Your task to perform on an android device: Open the Play Movies app and select the watchlist tab. Image 0: 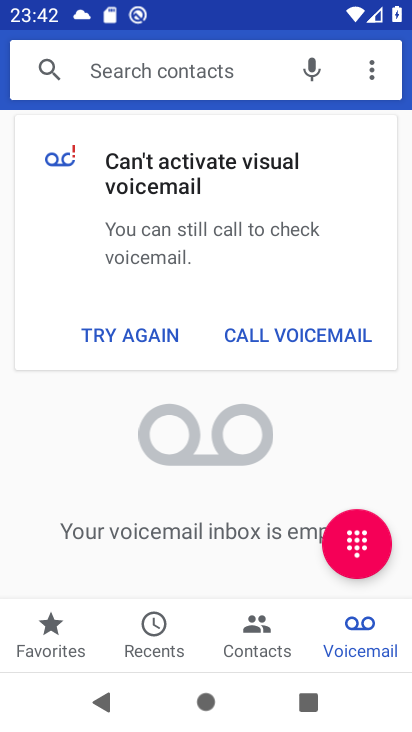
Step 0: press home button
Your task to perform on an android device: Open the Play Movies app and select the watchlist tab. Image 1: 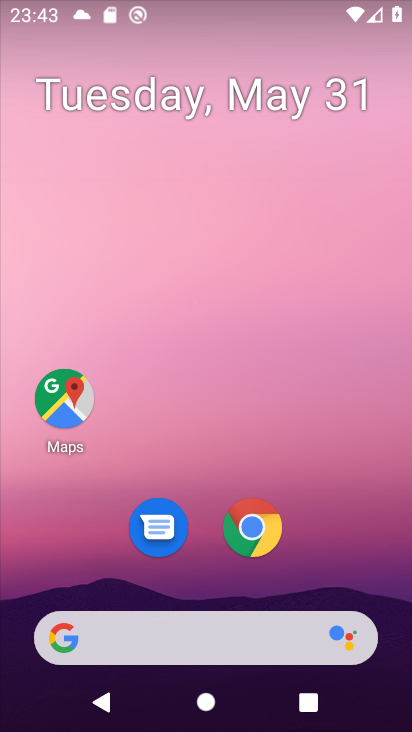
Step 1: drag from (305, 404) to (164, 34)
Your task to perform on an android device: Open the Play Movies app and select the watchlist tab. Image 2: 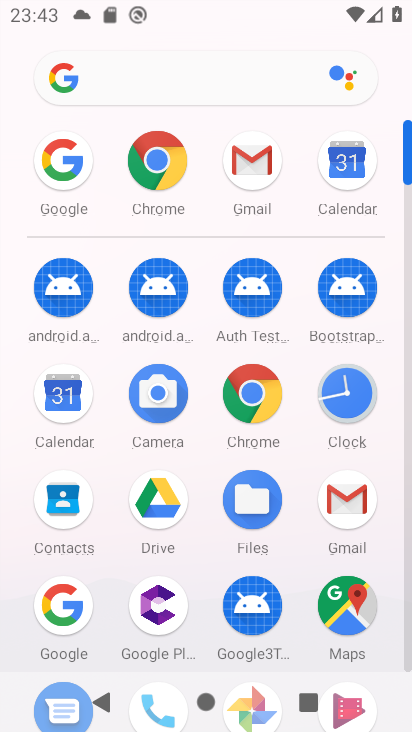
Step 2: drag from (304, 627) to (330, 241)
Your task to perform on an android device: Open the Play Movies app and select the watchlist tab. Image 3: 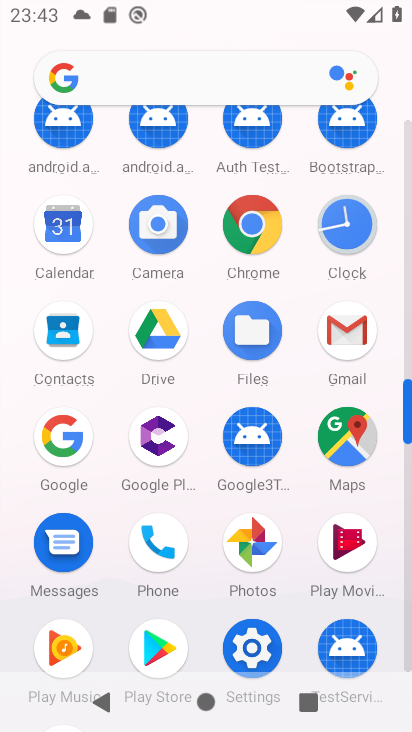
Step 3: click (342, 541)
Your task to perform on an android device: Open the Play Movies app and select the watchlist tab. Image 4: 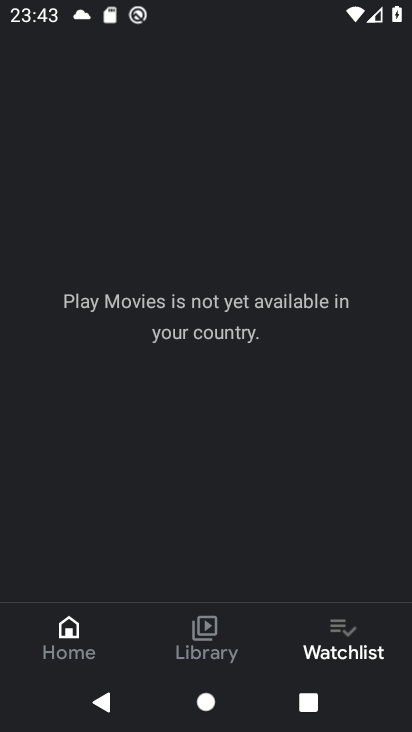
Step 4: click (349, 637)
Your task to perform on an android device: Open the Play Movies app and select the watchlist tab. Image 5: 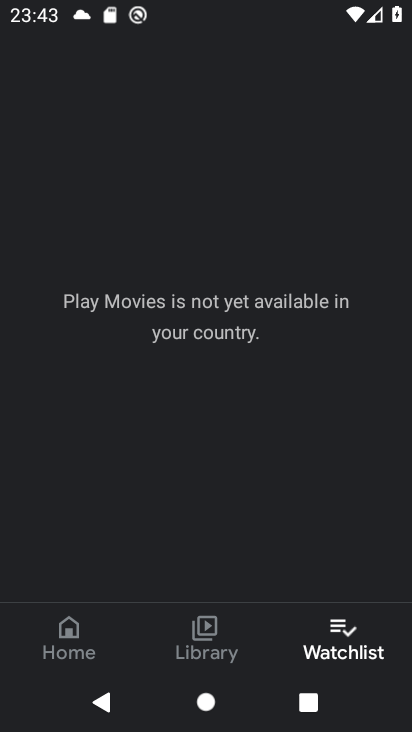
Step 5: task complete